Your task to perform on an android device: Do I have any events today? Image 0: 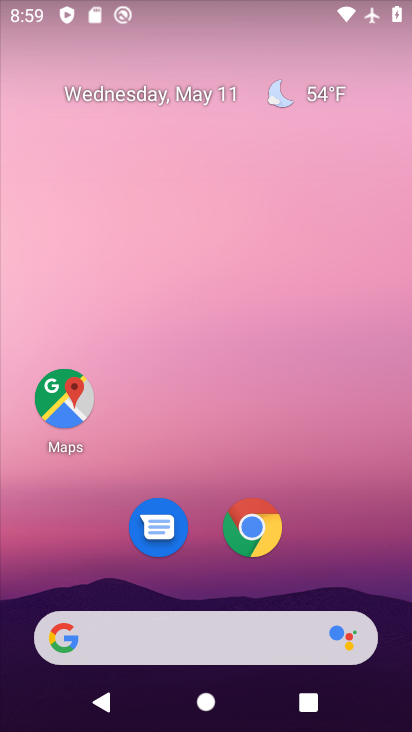
Step 0: drag from (321, 511) to (332, 27)
Your task to perform on an android device: Do I have any events today? Image 1: 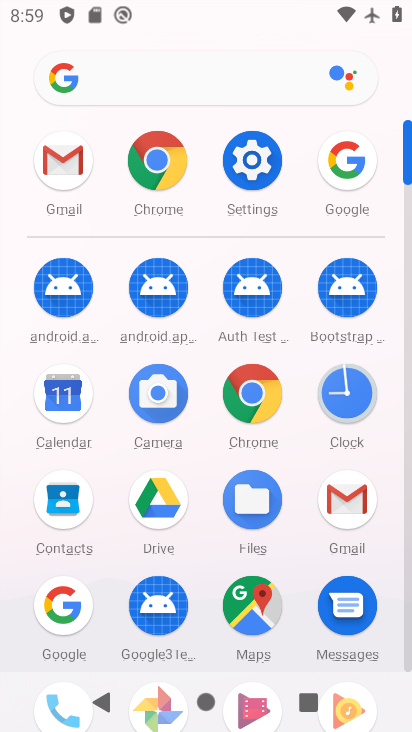
Step 1: click (68, 387)
Your task to perform on an android device: Do I have any events today? Image 2: 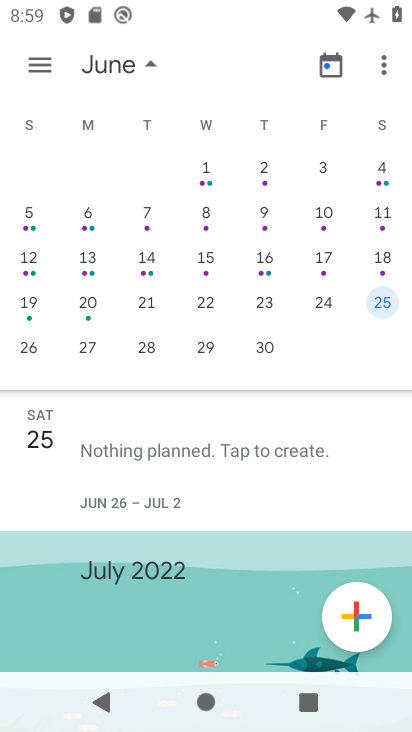
Step 2: drag from (170, 259) to (357, 259)
Your task to perform on an android device: Do I have any events today? Image 3: 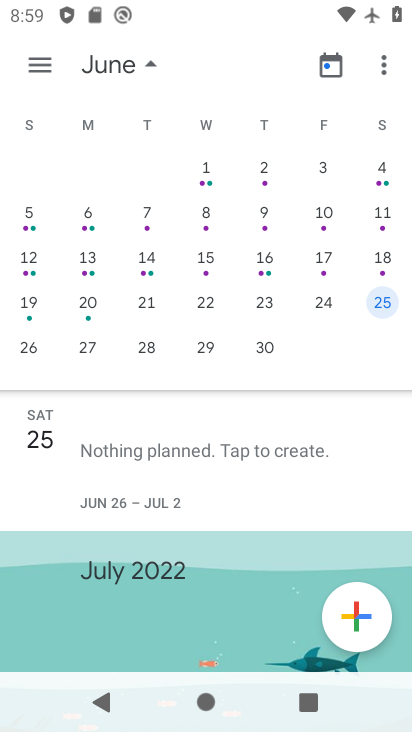
Step 3: drag from (67, 293) to (408, 317)
Your task to perform on an android device: Do I have any events today? Image 4: 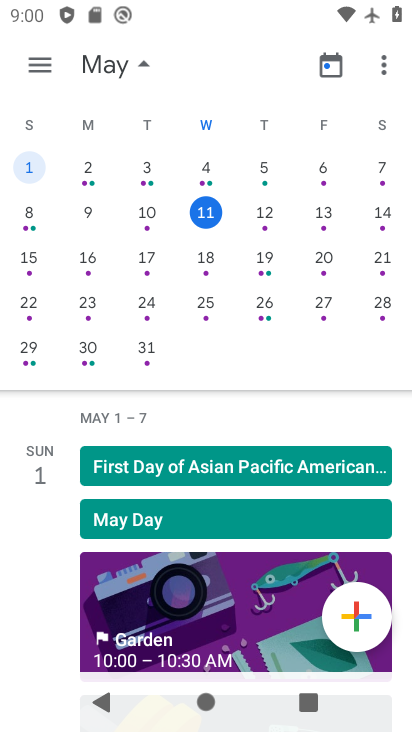
Step 4: click (201, 212)
Your task to perform on an android device: Do I have any events today? Image 5: 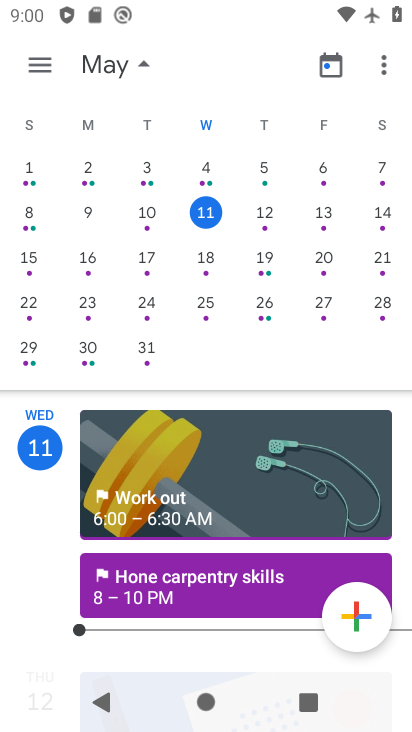
Step 5: task complete